Your task to perform on an android device: Search for Italian restaurants on Maps Image 0: 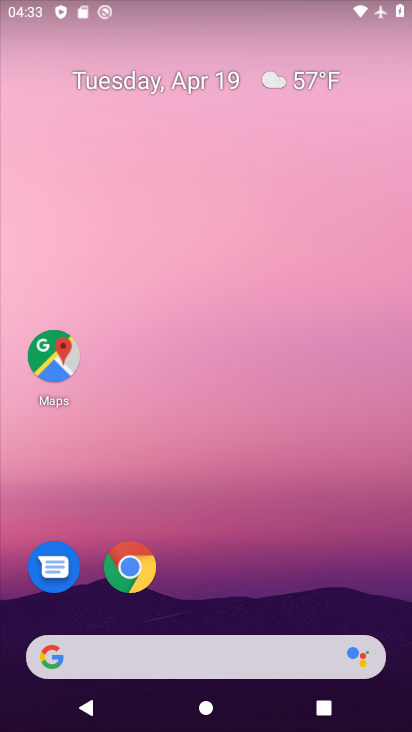
Step 0: drag from (369, 588) to (352, 177)
Your task to perform on an android device: Search for Italian restaurants on Maps Image 1: 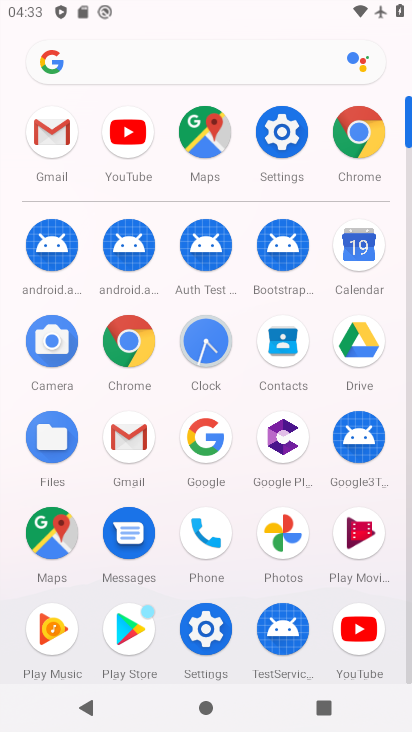
Step 1: click (56, 535)
Your task to perform on an android device: Search for Italian restaurants on Maps Image 2: 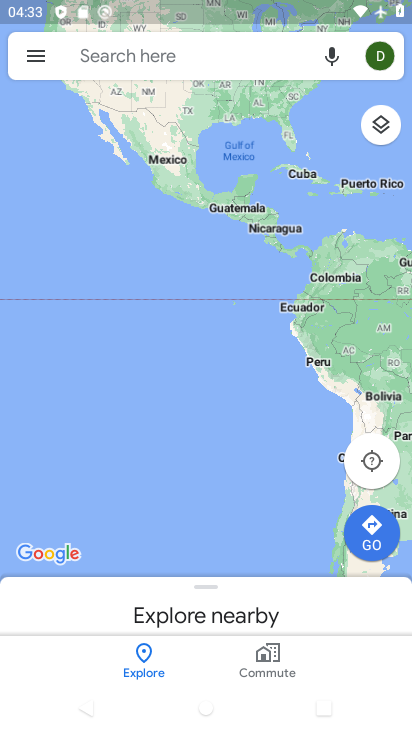
Step 2: click (204, 59)
Your task to perform on an android device: Search for Italian restaurants on Maps Image 3: 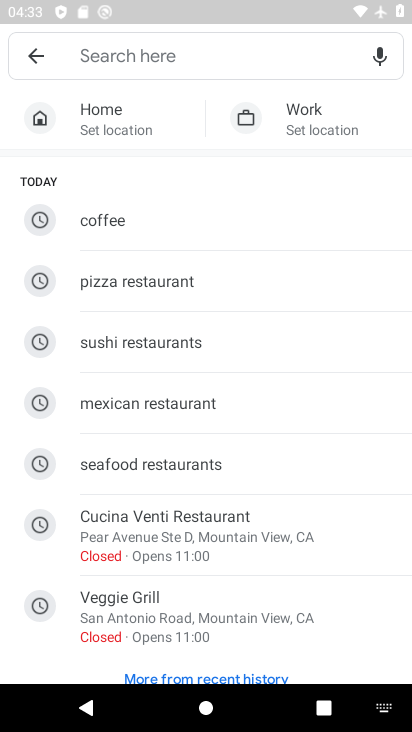
Step 3: type "italian restaurants"
Your task to perform on an android device: Search for Italian restaurants on Maps Image 4: 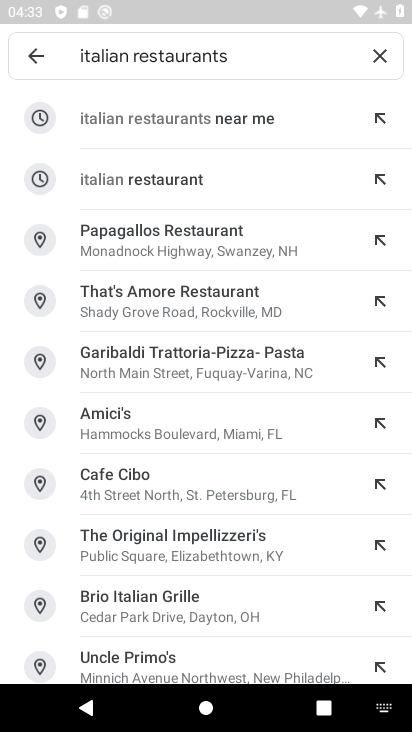
Step 4: click (163, 188)
Your task to perform on an android device: Search for Italian restaurants on Maps Image 5: 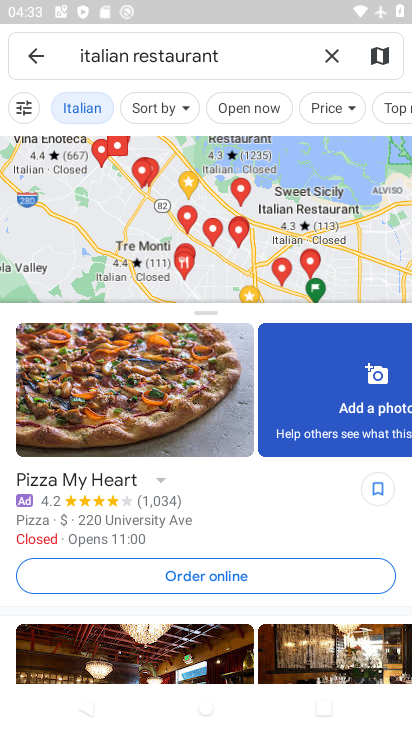
Step 5: task complete